Your task to perform on an android device: Turn off the flashlight Image 0: 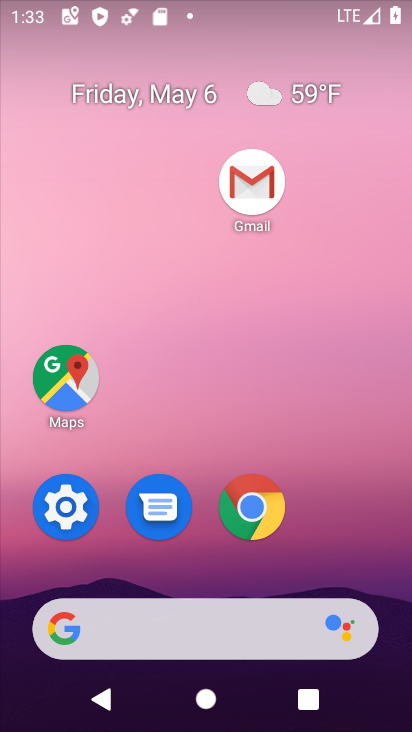
Step 0: click (59, 509)
Your task to perform on an android device: Turn off the flashlight Image 1: 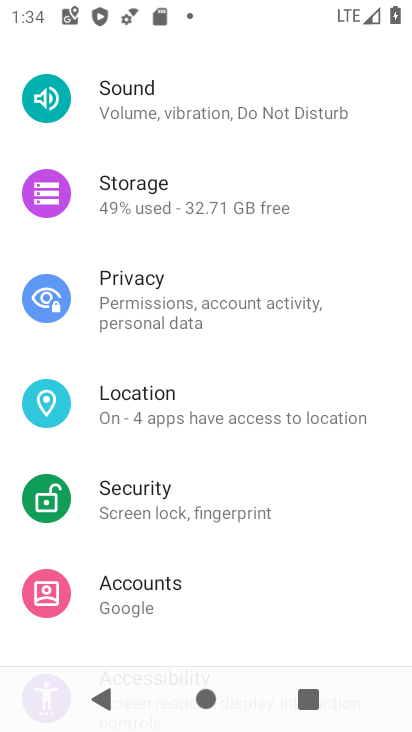
Step 1: click (159, 297)
Your task to perform on an android device: Turn off the flashlight Image 2: 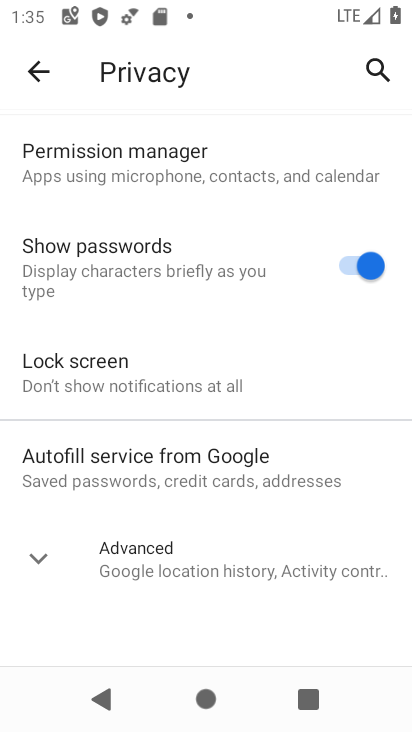
Step 2: drag from (206, 516) to (168, 302)
Your task to perform on an android device: Turn off the flashlight Image 3: 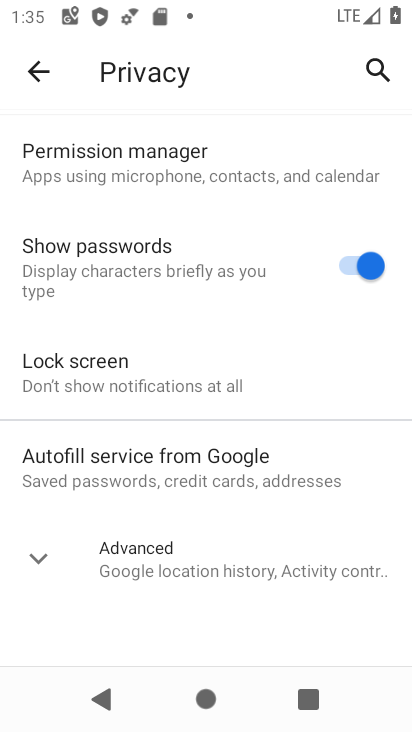
Step 3: click (36, 76)
Your task to perform on an android device: Turn off the flashlight Image 4: 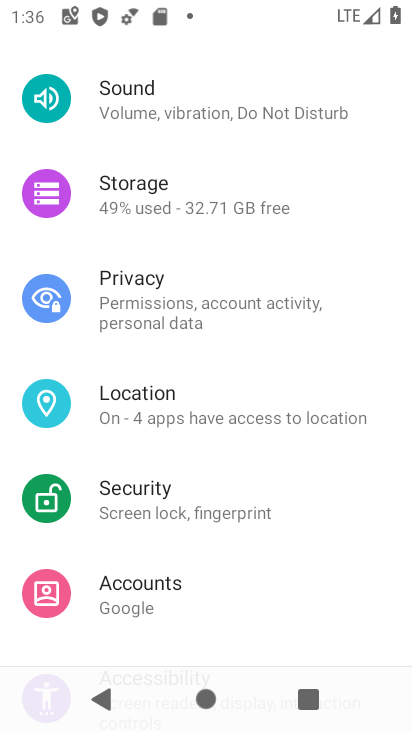
Step 4: task complete